Your task to perform on an android device: Do I have any events this weekend? Image 0: 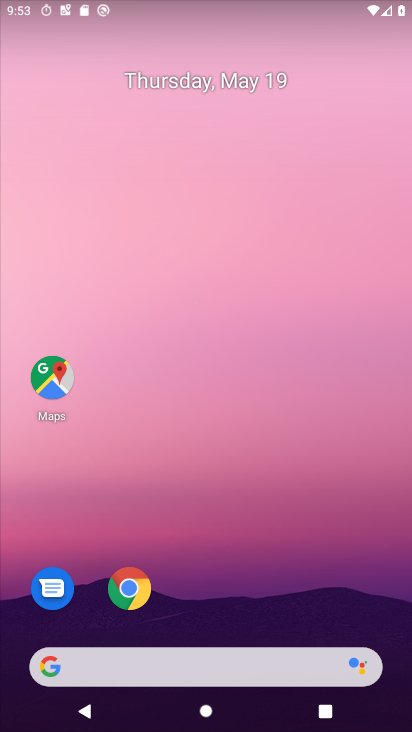
Step 0: press home button
Your task to perform on an android device: Do I have any events this weekend? Image 1: 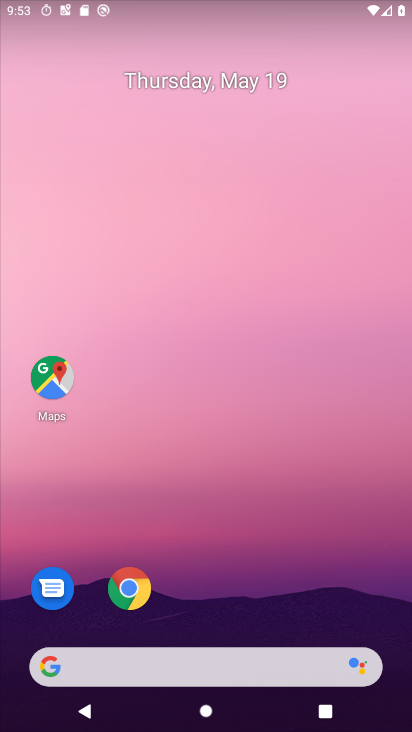
Step 1: drag from (136, 670) to (279, 161)
Your task to perform on an android device: Do I have any events this weekend? Image 2: 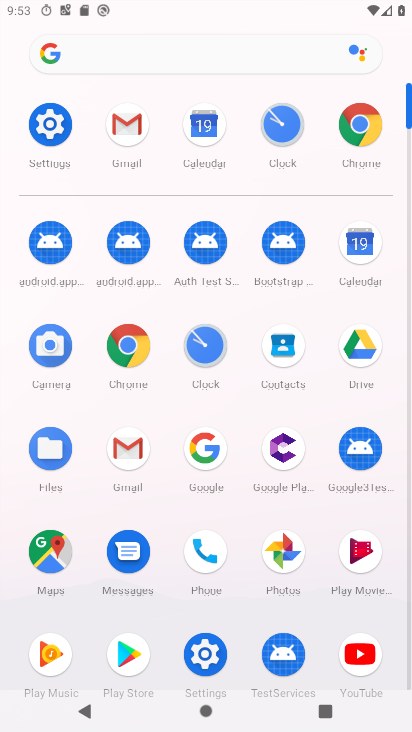
Step 2: click (210, 137)
Your task to perform on an android device: Do I have any events this weekend? Image 3: 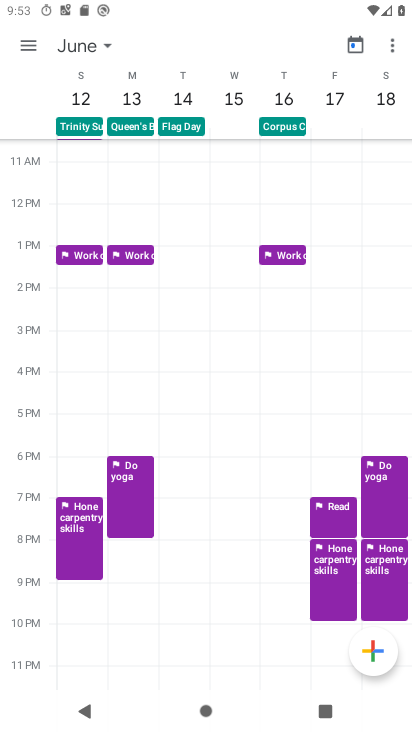
Step 3: click (83, 50)
Your task to perform on an android device: Do I have any events this weekend? Image 4: 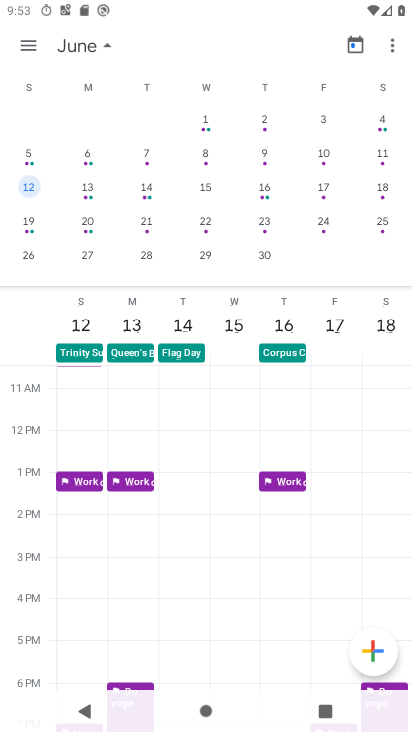
Step 4: drag from (58, 192) to (374, 213)
Your task to perform on an android device: Do I have any events this weekend? Image 5: 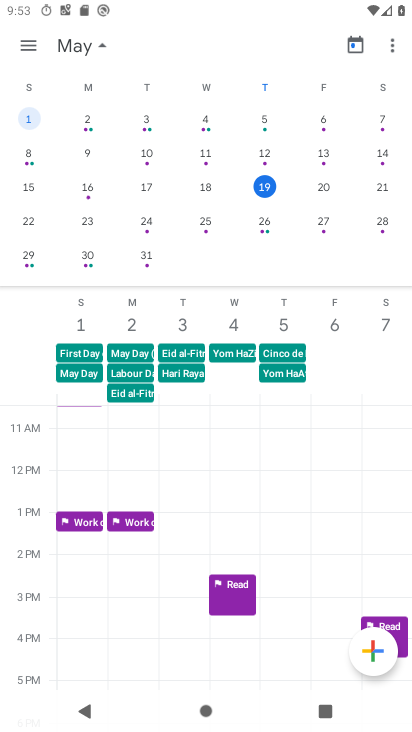
Step 5: click (383, 186)
Your task to perform on an android device: Do I have any events this weekend? Image 6: 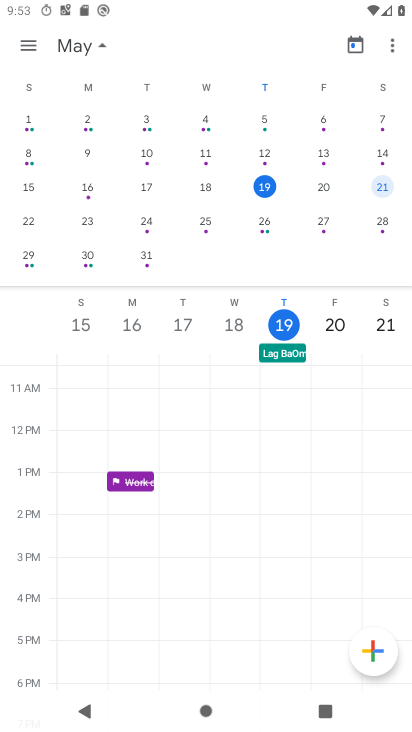
Step 6: click (28, 47)
Your task to perform on an android device: Do I have any events this weekend? Image 7: 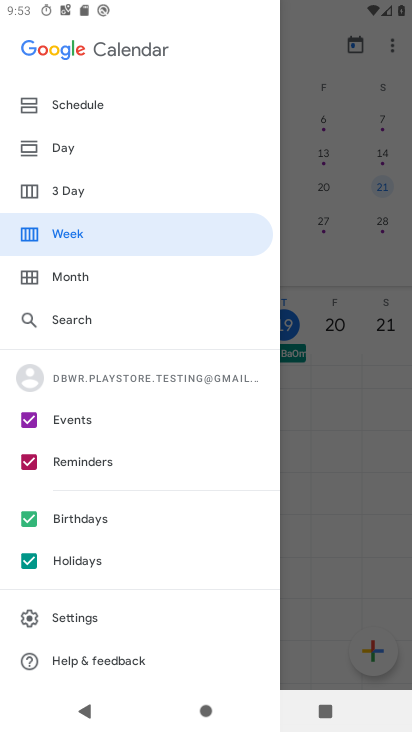
Step 7: click (66, 139)
Your task to perform on an android device: Do I have any events this weekend? Image 8: 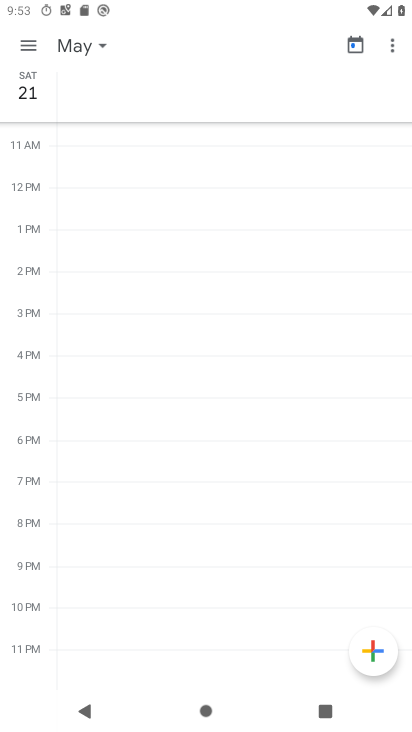
Step 8: click (34, 45)
Your task to perform on an android device: Do I have any events this weekend? Image 9: 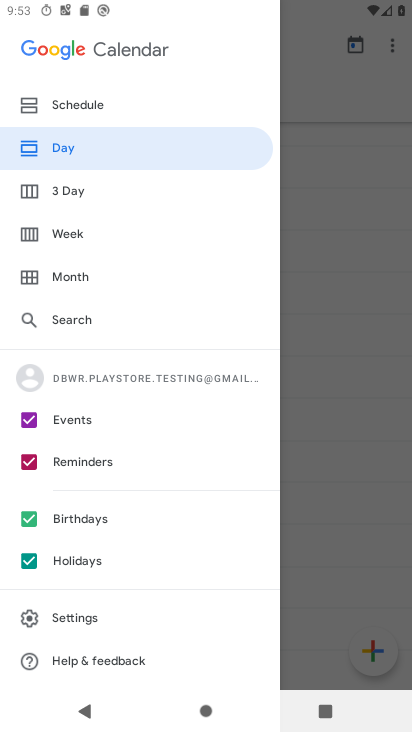
Step 9: click (69, 108)
Your task to perform on an android device: Do I have any events this weekend? Image 10: 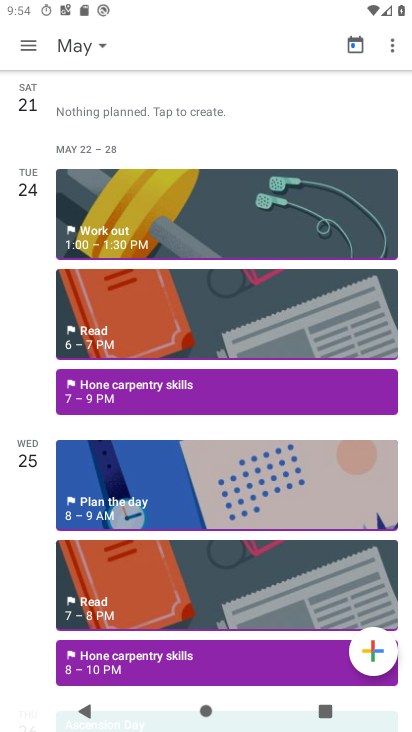
Step 10: task complete